Your task to perform on an android device: turn on improve location accuracy Image 0: 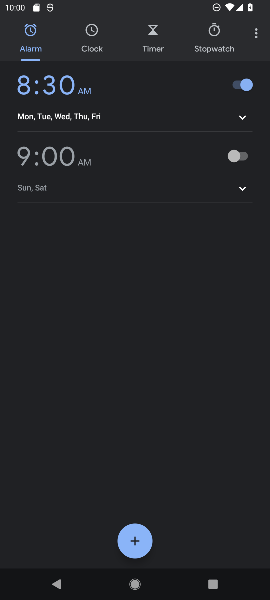
Step 0: drag from (114, 463) to (139, 154)
Your task to perform on an android device: turn on improve location accuracy Image 1: 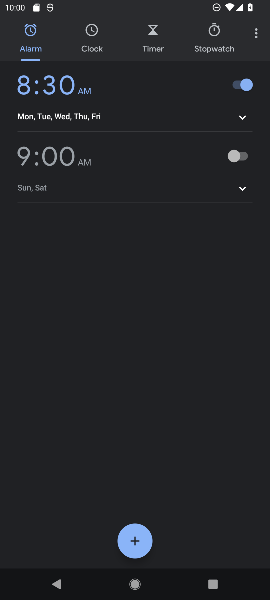
Step 1: press home button
Your task to perform on an android device: turn on improve location accuracy Image 2: 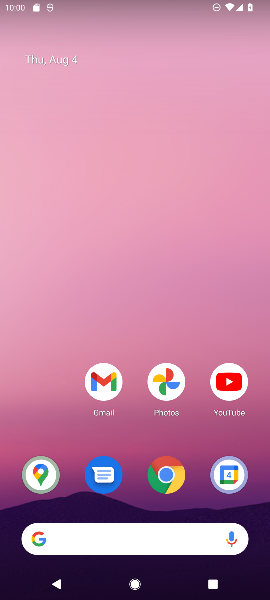
Step 2: drag from (130, 495) to (103, 39)
Your task to perform on an android device: turn on improve location accuracy Image 3: 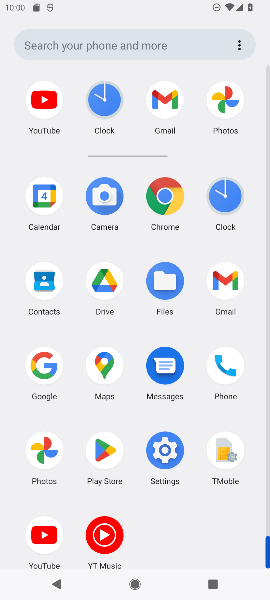
Step 3: click (155, 439)
Your task to perform on an android device: turn on improve location accuracy Image 4: 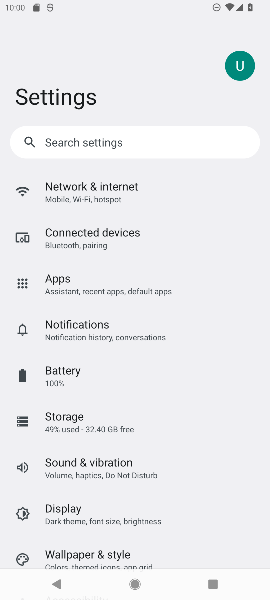
Step 4: drag from (132, 480) to (128, 174)
Your task to perform on an android device: turn on improve location accuracy Image 5: 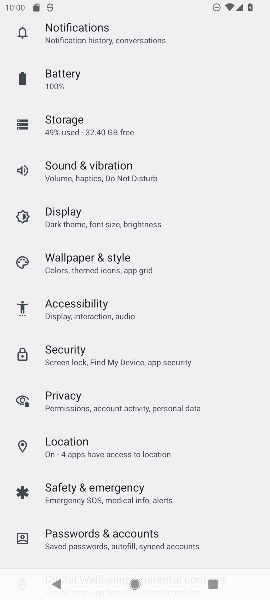
Step 5: click (80, 439)
Your task to perform on an android device: turn on improve location accuracy Image 6: 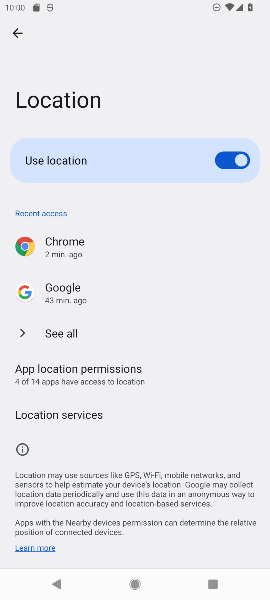
Step 6: click (88, 416)
Your task to perform on an android device: turn on improve location accuracy Image 7: 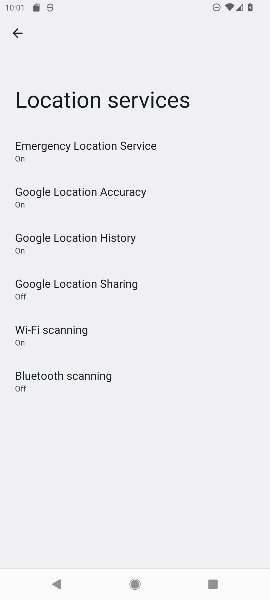
Step 7: drag from (129, 435) to (162, 128)
Your task to perform on an android device: turn on improve location accuracy Image 8: 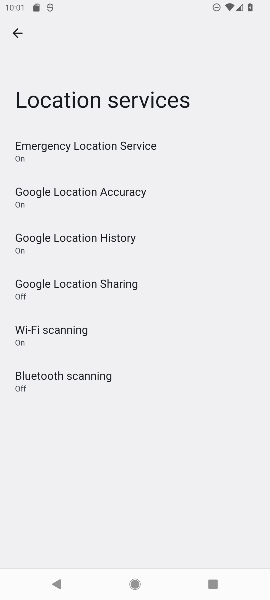
Step 8: drag from (117, 104) to (186, 515)
Your task to perform on an android device: turn on improve location accuracy Image 9: 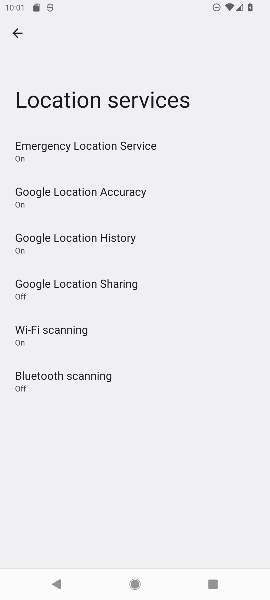
Step 9: click (142, 193)
Your task to perform on an android device: turn on improve location accuracy Image 10: 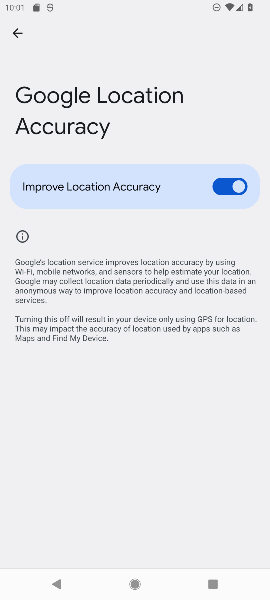
Step 10: task complete